Your task to perform on an android device: change your default location settings in chrome Image 0: 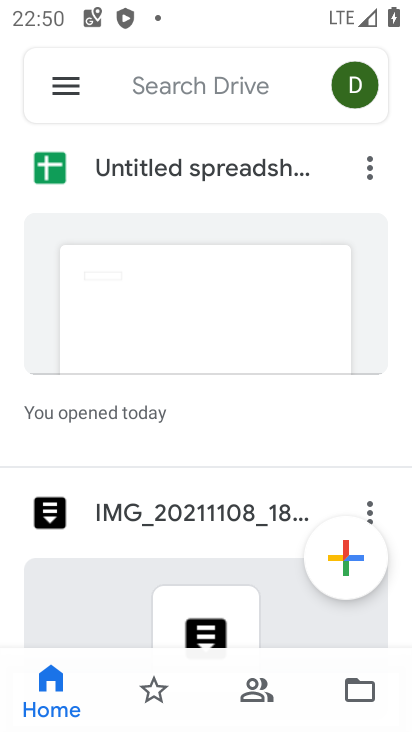
Step 0: press home button
Your task to perform on an android device: change your default location settings in chrome Image 1: 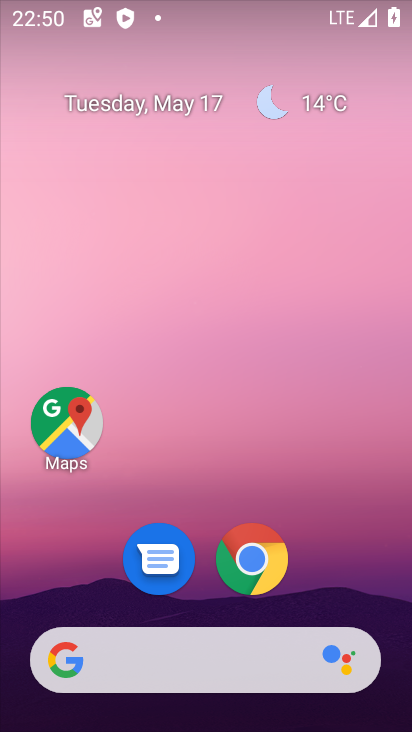
Step 1: click (255, 569)
Your task to perform on an android device: change your default location settings in chrome Image 2: 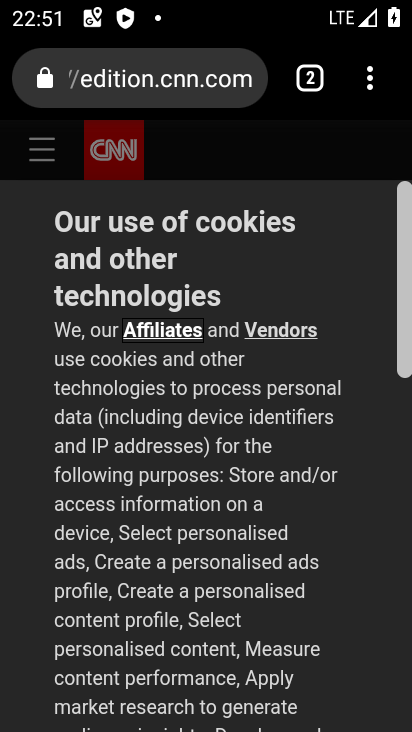
Step 2: drag from (371, 72) to (149, 625)
Your task to perform on an android device: change your default location settings in chrome Image 3: 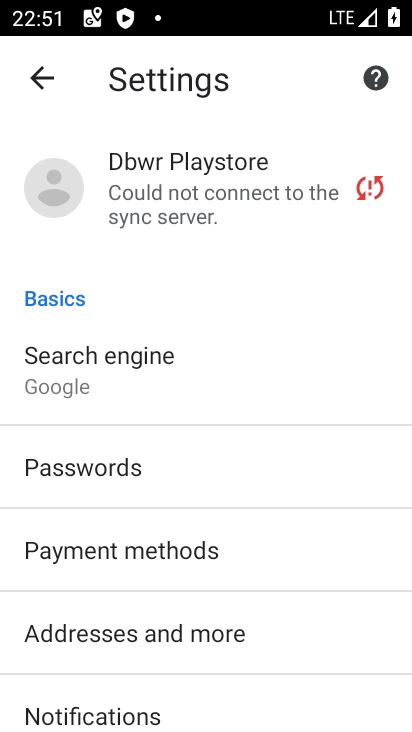
Step 3: drag from (180, 645) to (275, 98)
Your task to perform on an android device: change your default location settings in chrome Image 4: 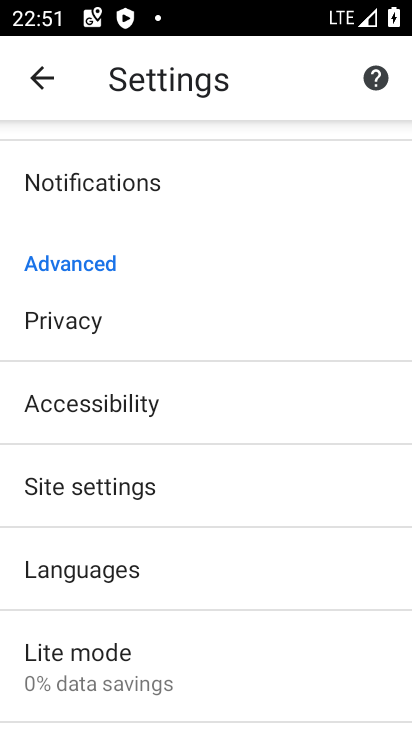
Step 4: click (154, 480)
Your task to perform on an android device: change your default location settings in chrome Image 5: 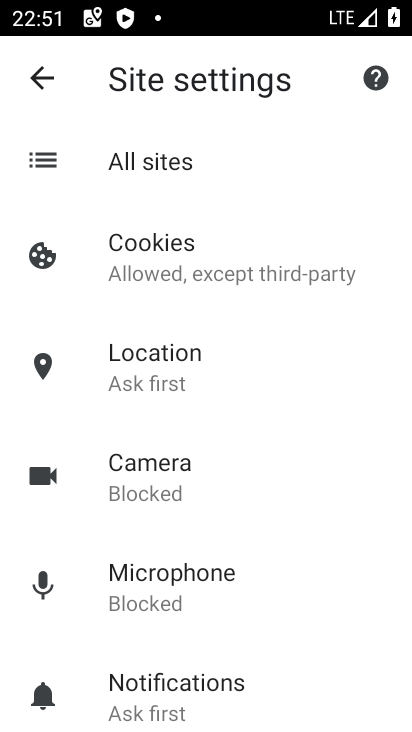
Step 5: click (194, 370)
Your task to perform on an android device: change your default location settings in chrome Image 6: 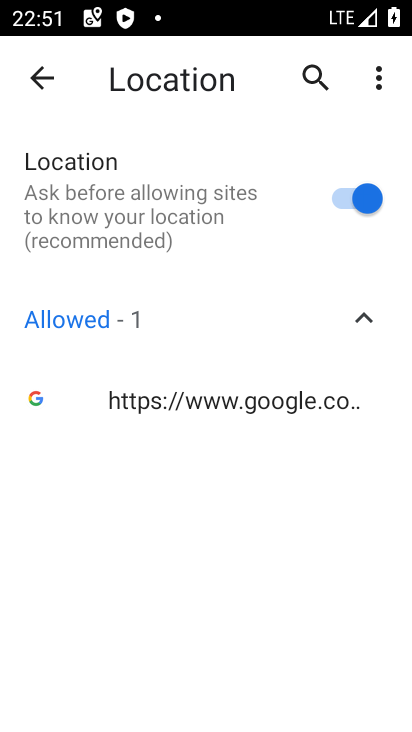
Step 6: click (348, 205)
Your task to perform on an android device: change your default location settings in chrome Image 7: 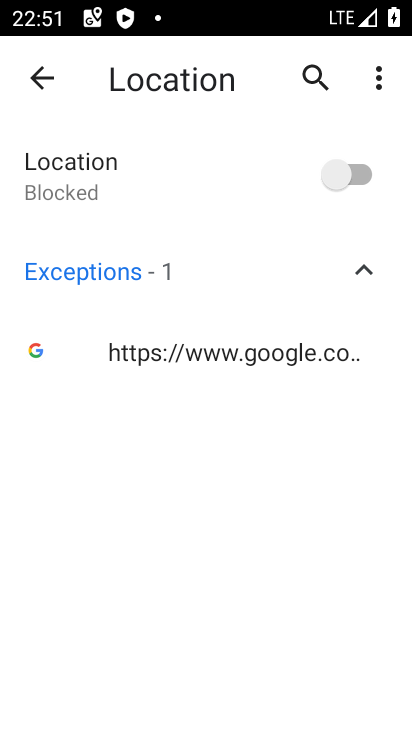
Step 7: task complete